Your task to perform on an android device: What's the weather going to be this weekend? Image 0: 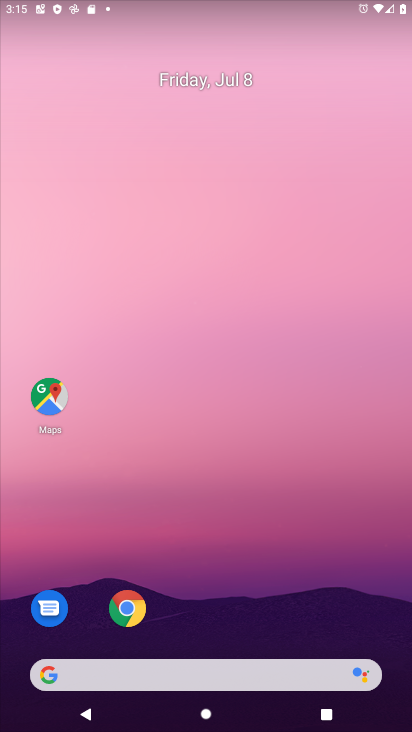
Step 0: drag from (311, 666) to (314, 182)
Your task to perform on an android device: What's the weather going to be this weekend? Image 1: 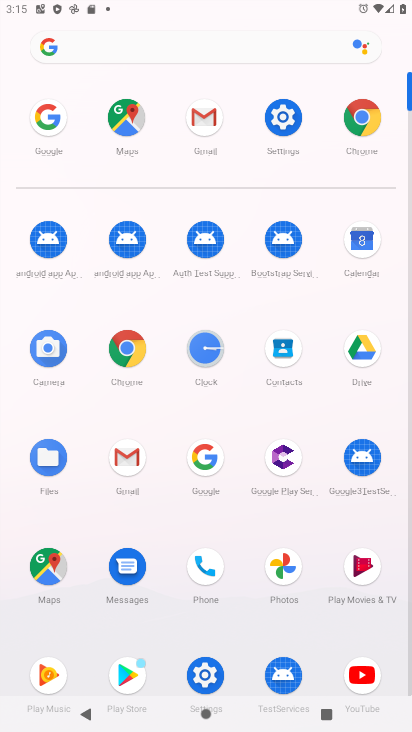
Step 1: click (194, 455)
Your task to perform on an android device: What's the weather going to be this weekend? Image 2: 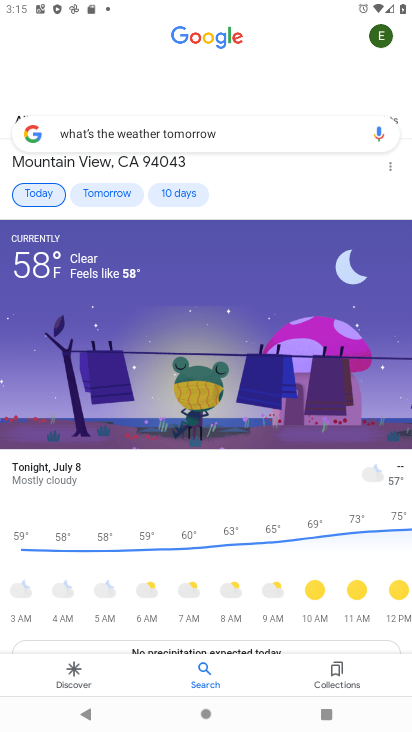
Step 2: click (180, 203)
Your task to perform on an android device: What's the weather going to be this weekend? Image 3: 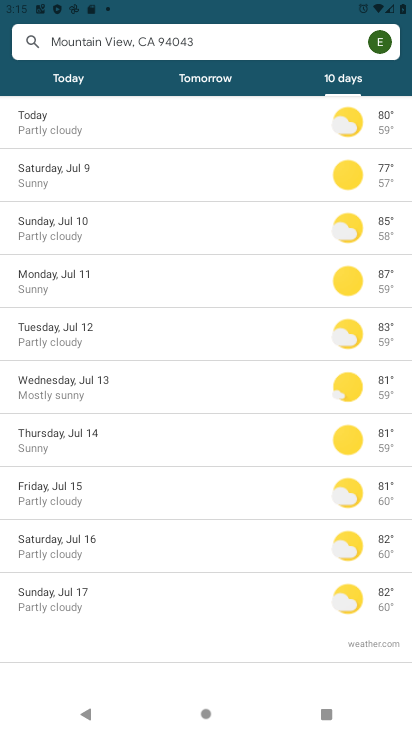
Step 3: task complete